Your task to perform on an android device: turn on location history Image 0: 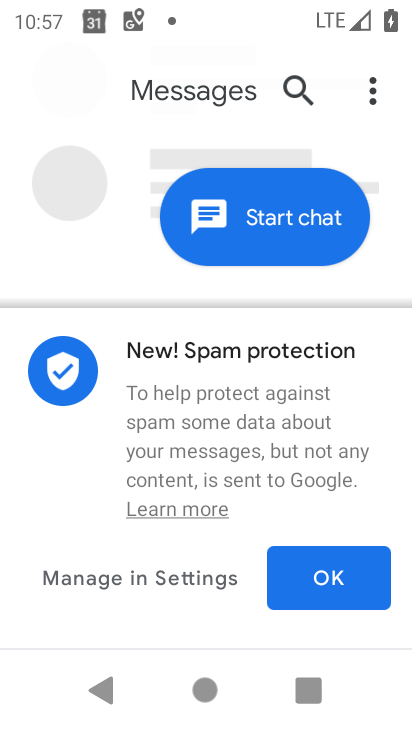
Step 0: press home button
Your task to perform on an android device: turn on location history Image 1: 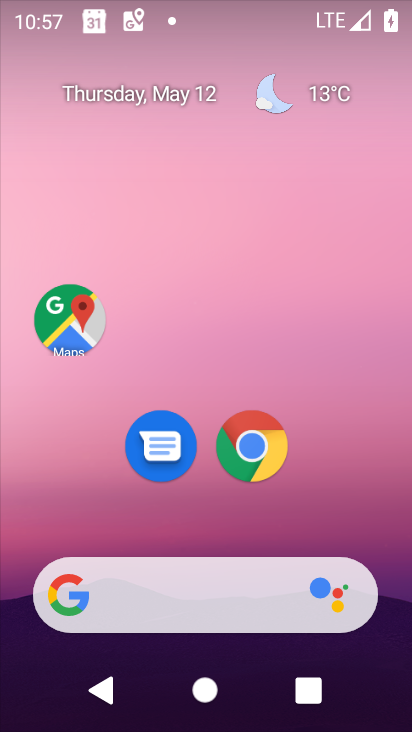
Step 1: drag from (212, 551) to (211, 32)
Your task to perform on an android device: turn on location history Image 2: 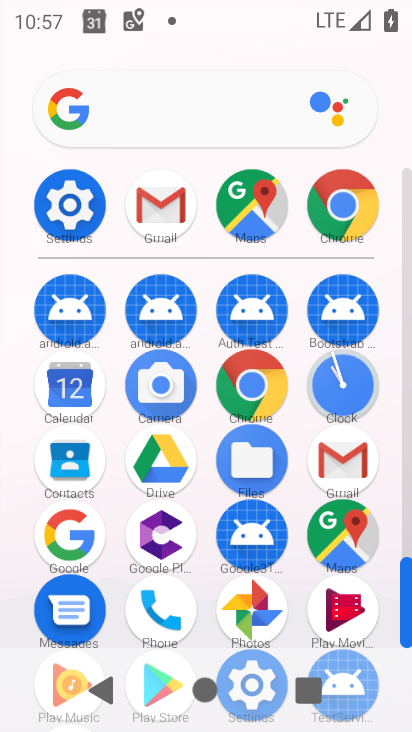
Step 2: click (84, 219)
Your task to perform on an android device: turn on location history Image 3: 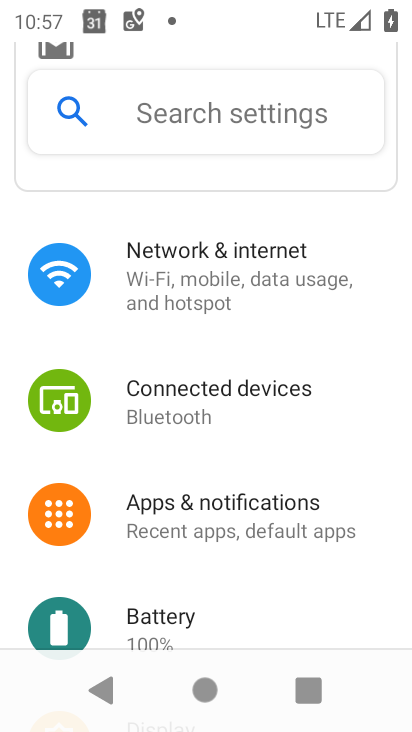
Step 3: drag from (248, 611) to (306, 132)
Your task to perform on an android device: turn on location history Image 4: 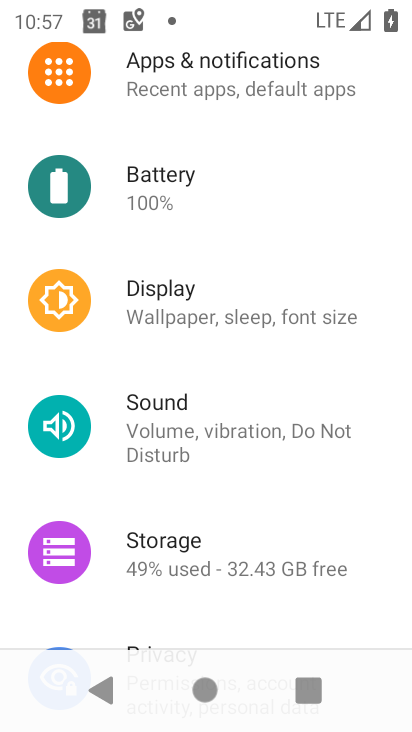
Step 4: drag from (256, 620) to (232, 116)
Your task to perform on an android device: turn on location history Image 5: 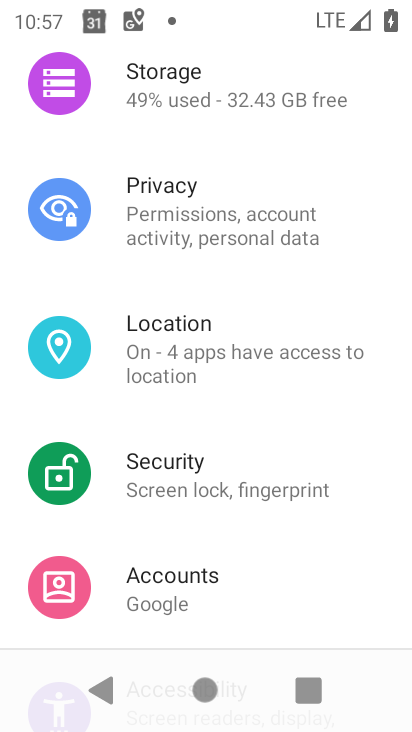
Step 5: click (218, 337)
Your task to perform on an android device: turn on location history Image 6: 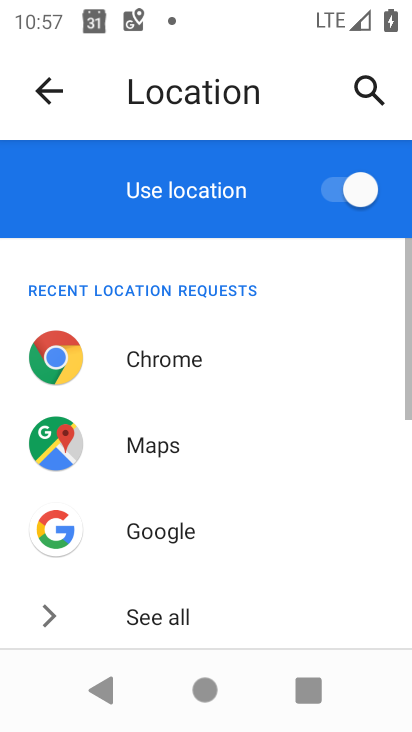
Step 6: drag from (302, 583) to (343, 93)
Your task to perform on an android device: turn on location history Image 7: 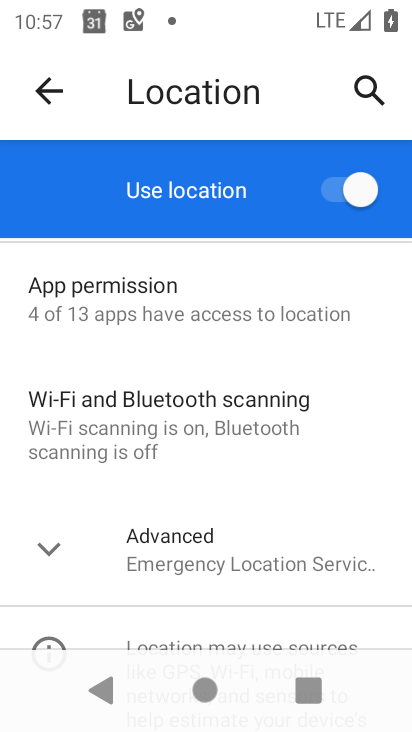
Step 7: click (276, 558)
Your task to perform on an android device: turn on location history Image 8: 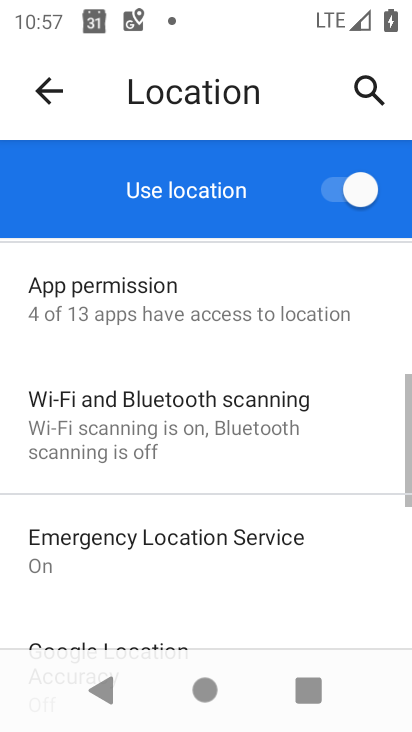
Step 8: task complete